Your task to perform on an android device: turn off smart reply in the gmail app Image 0: 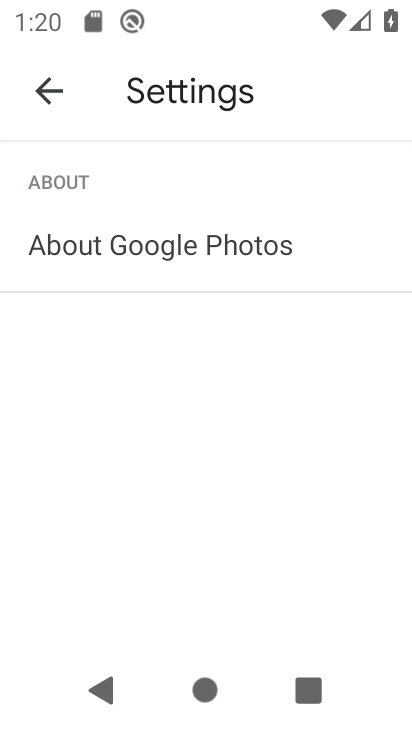
Step 0: press home button
Your task to perform on an android device: turn off smart reply in the gmail app Image 1: 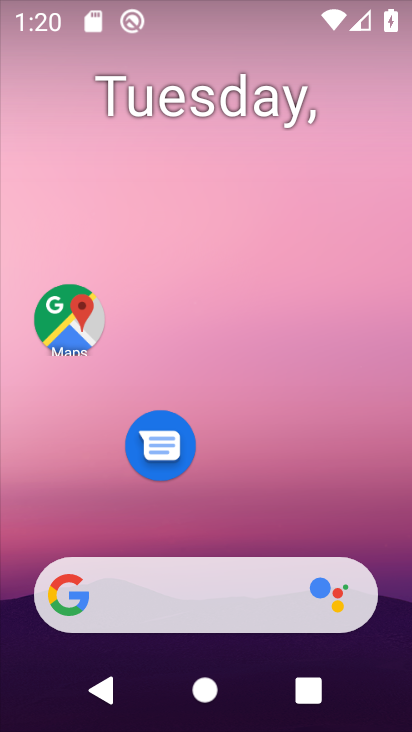
Step 1: drag from (263, 493) to (131, 29)
Your task to perform on an android device: turn off smart reply in the gmail app Image 2: 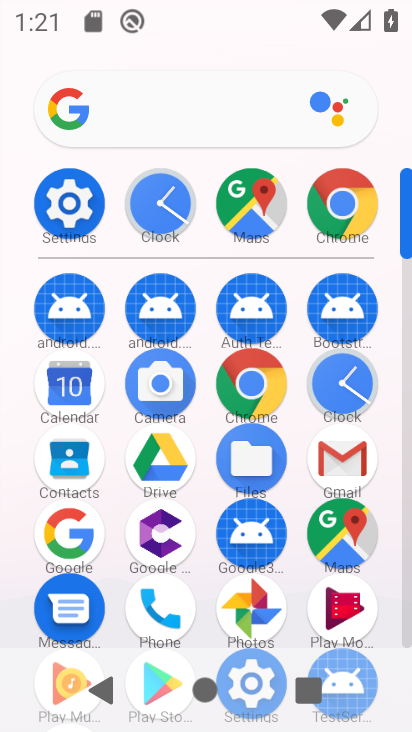
Step 2: click (335, 462)
Your task to perform on an android device: turn off smart reply in the gmail app Image 3: 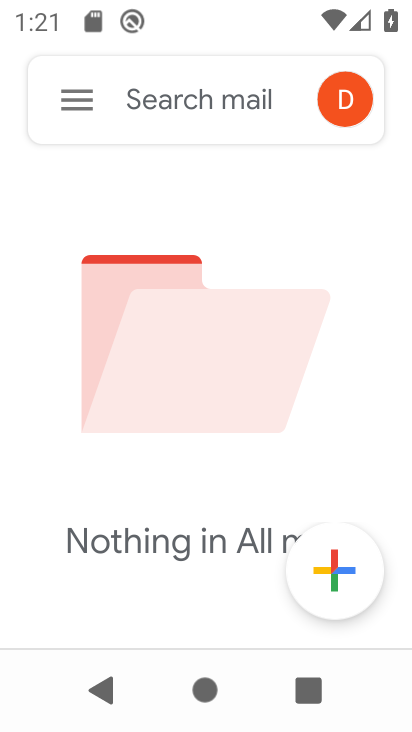
Step 3: click (79, 94)
Your task to perform on an android device: turn off smart reply in the gmail app Image 4: 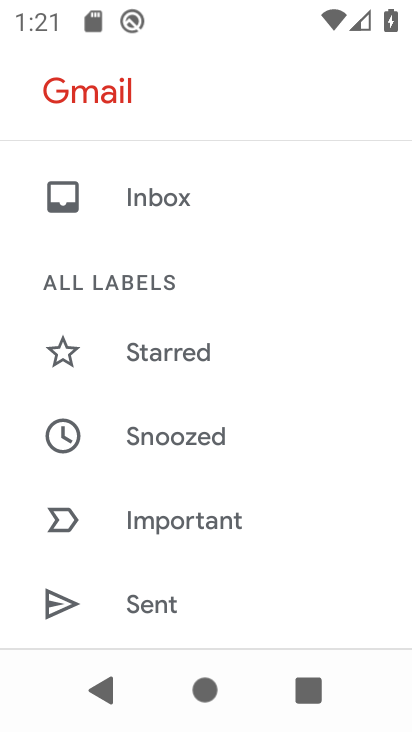
Step 4: drag from (185, 551) to (72, 111)
Your task to perform on an android device: turn off smart reply in the gmail app Image 5: 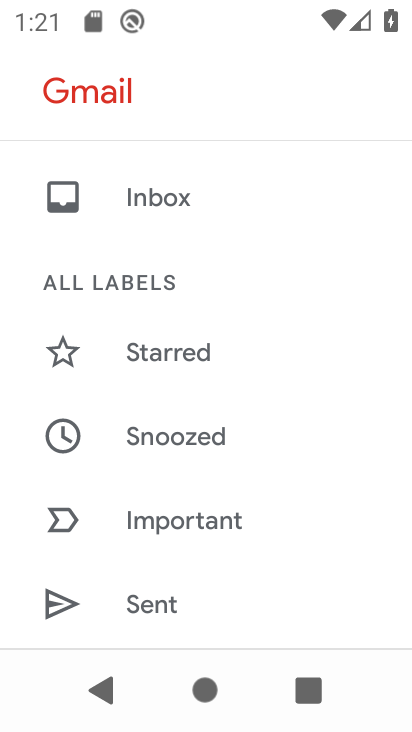
Step 5: drag from (208, 570) to (91, 195)
Your task to perform on an android device: turn off smart reply in the gmail app Image 6: 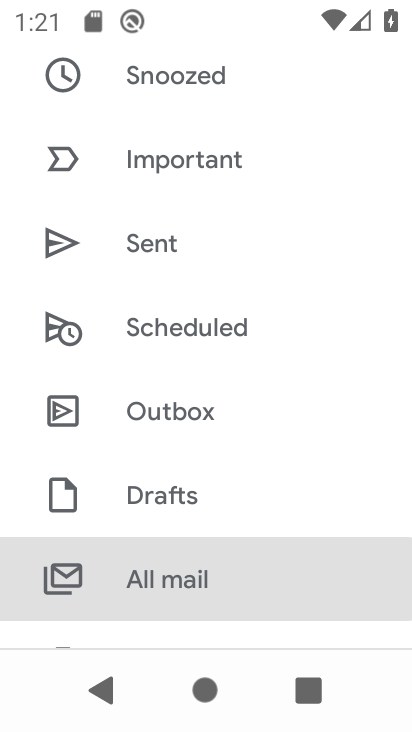
Step 6: drag from (246, 450) to (189, 119)
Your task to perform on an android device: turn off smart reply in the gmail app Image 7: 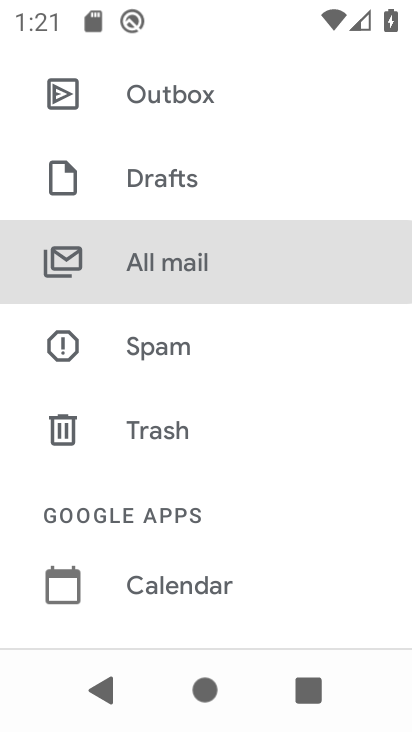
Step 7: click (192, 174)
Your task to perform on an android device: turn off smart reply in the gmail app Image 8: 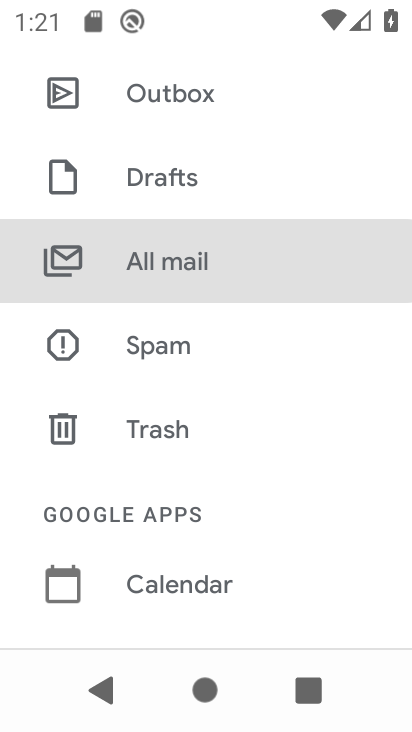
Step 8: drag from (203, 529) to (118, 130)
Your task to perform on an android device: turn off smart reply in the gmail app Image 9: 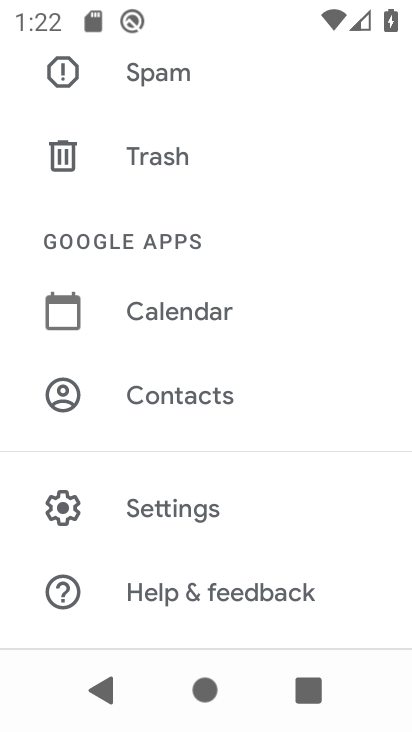
Step 9: click (178, 509)
Your task to perform on an android device: turn off smart reply in the gmail app Image 10: 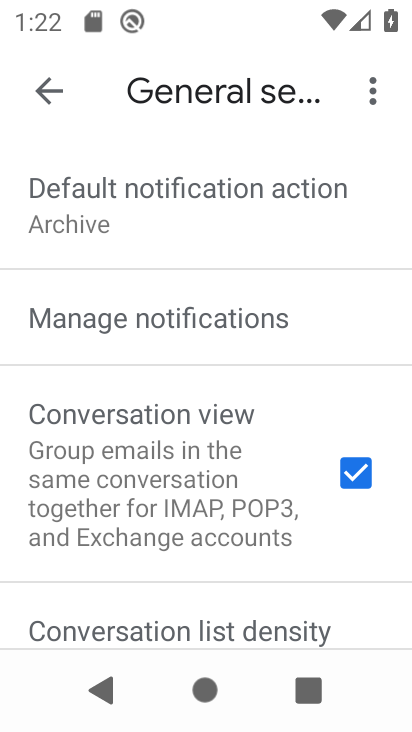
Step 10: drag from (200, 453) to (66, 36)
Your task to perform on an android device: turn off smart reply in the gmail app Image 11: 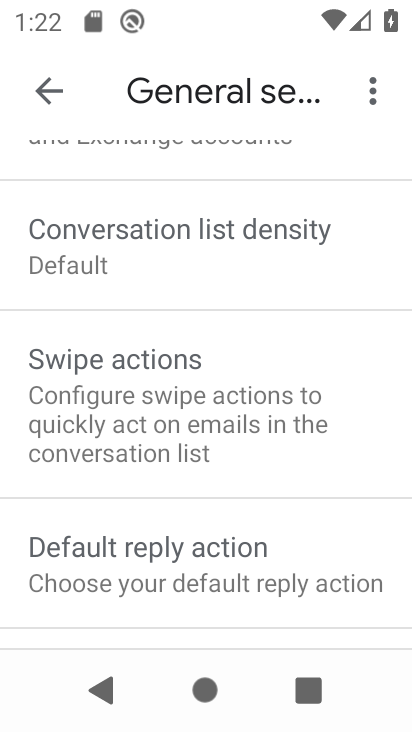
Step 11: drag from (170, 460) to (67, 42)
Your task to perform on an android device: turn off smart reply in the gmail app Image 12: 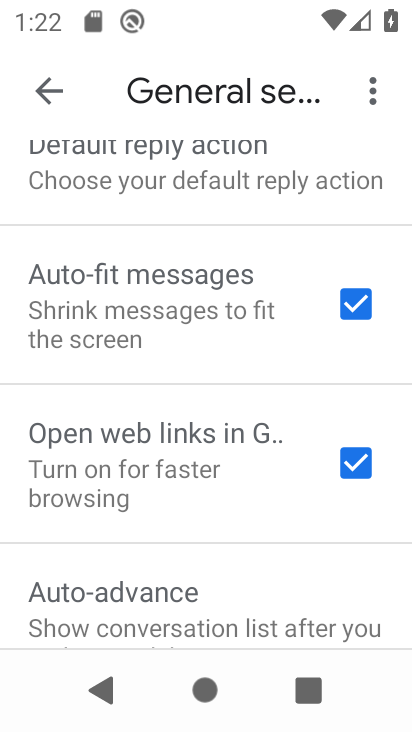
Step 12: click (43, 86)
Your task to perform on an android device: turn off smart reply in the gmail app Image 13: 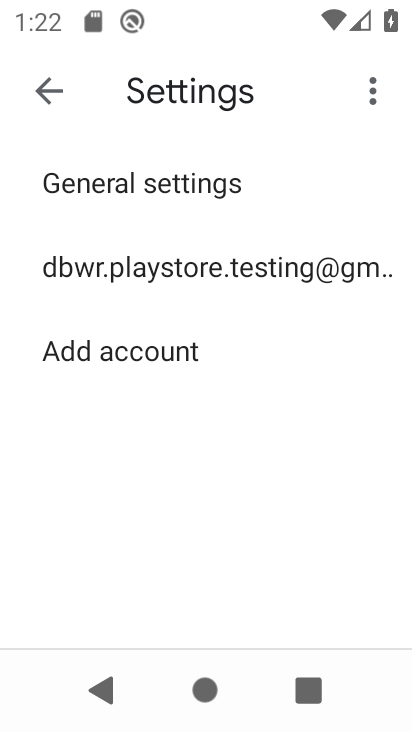
Step 13: click (109, 264)
Your task to perform on an android device: turn off smart reply in the gmail app Image 14: 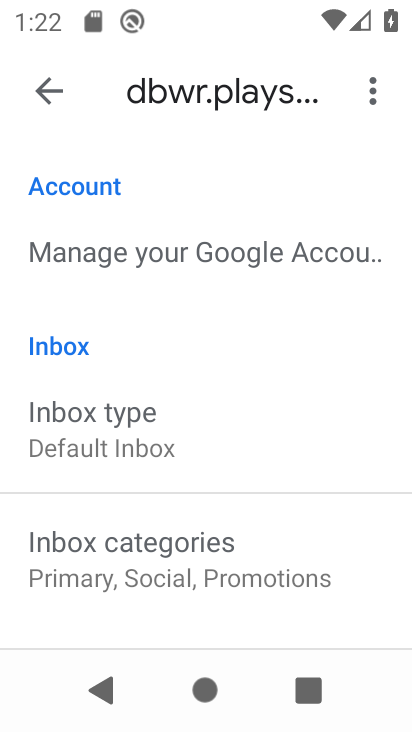
Step 14: drag from (149, 477) to (76, 181)
Your task to perform on an android device: turn off smart reply in the gmail app Image 15: 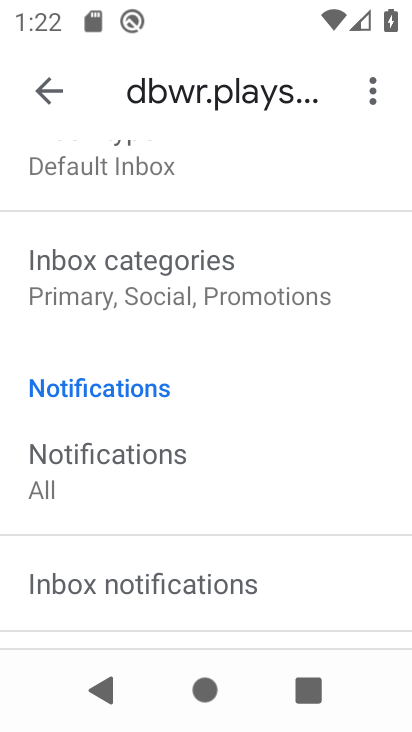
Step 15: drag from (176, 488) to (140, 244)
Your task to perform on an android device: turn off smart reply in the gmail app Image 16: 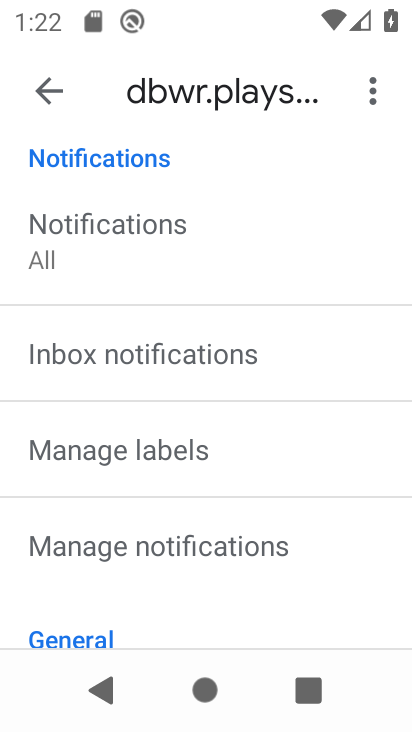
Step 16: drag from (145, 486) to (94, 177)
Your task to perform on an android device: turn off smart reply in the gmail app Image 17: 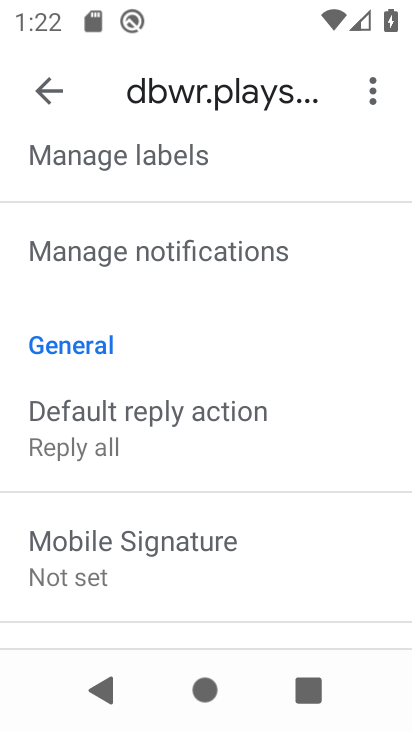
Step 17: drag from (153, 474) to (84, 217)
Your task to perform on an android device: turn off smart reply in the gmail app Image 18: 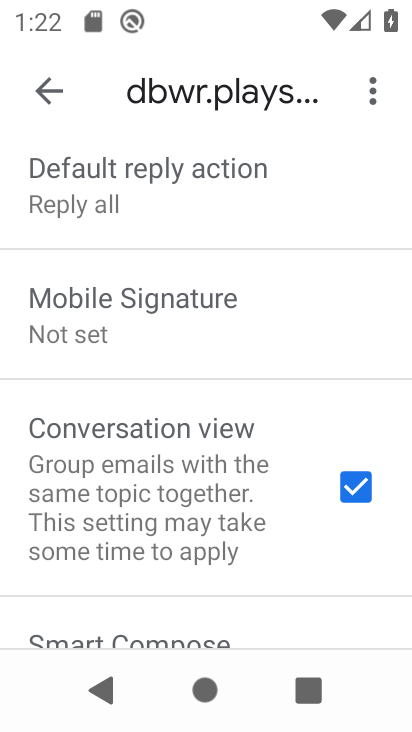
Step 18: drag from (134, 550) to (70, 167)
Your task to perform on an android device: turn off smart reply in the gmail app Image 19: 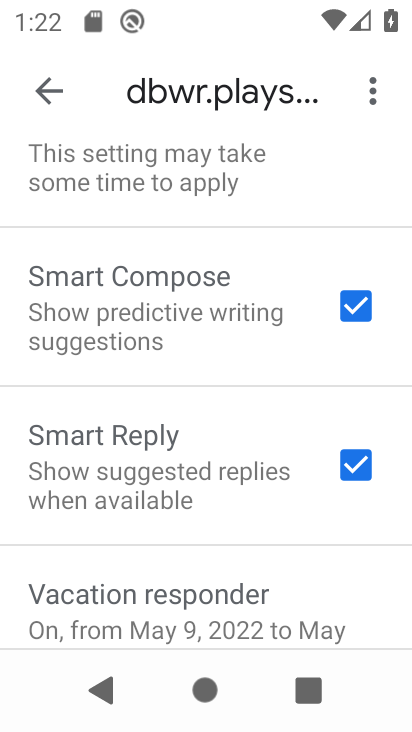
Step 19: drag from (194, 558) to (142, 187)
Your task to perform on an android device: turn off smart reply in the gmail app Image 20: 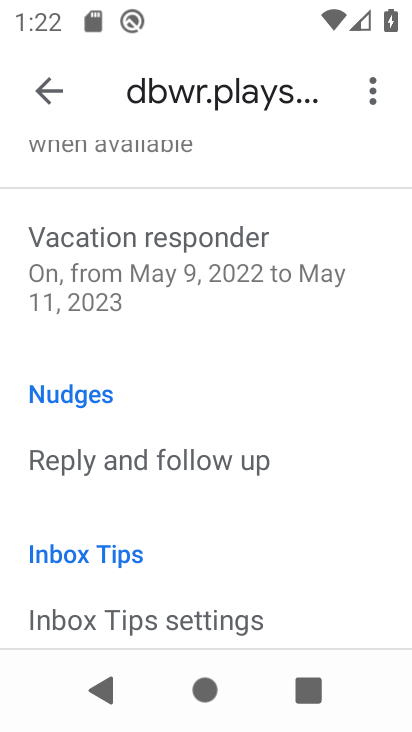
Step 20: drag from (209, 290) to (247, 526)
Your task to perform on an android device: turn off smart reply in the gmail app Image 21: 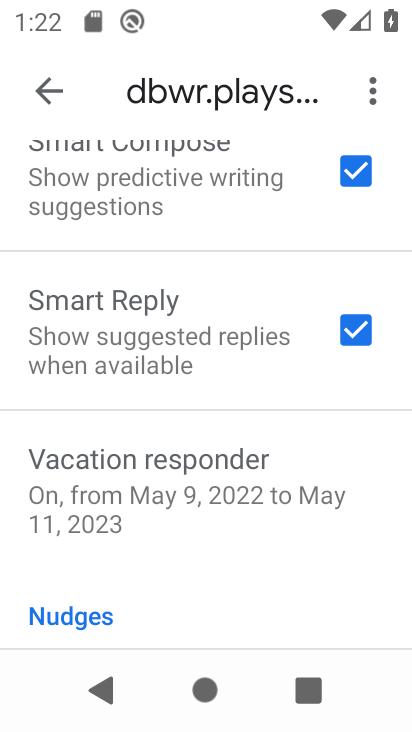
Step 21: click (357, 335)
Your task to perform on an android device: turn off smart reply in the gmail app Image 22: 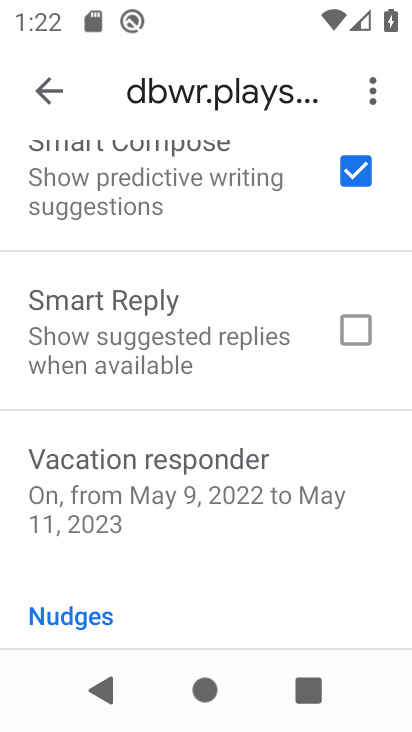
Step 22: task complete